Your task to perform on an android device: open app "Instagram" (install if not already installed), go to login, and select forgot password Image 0: 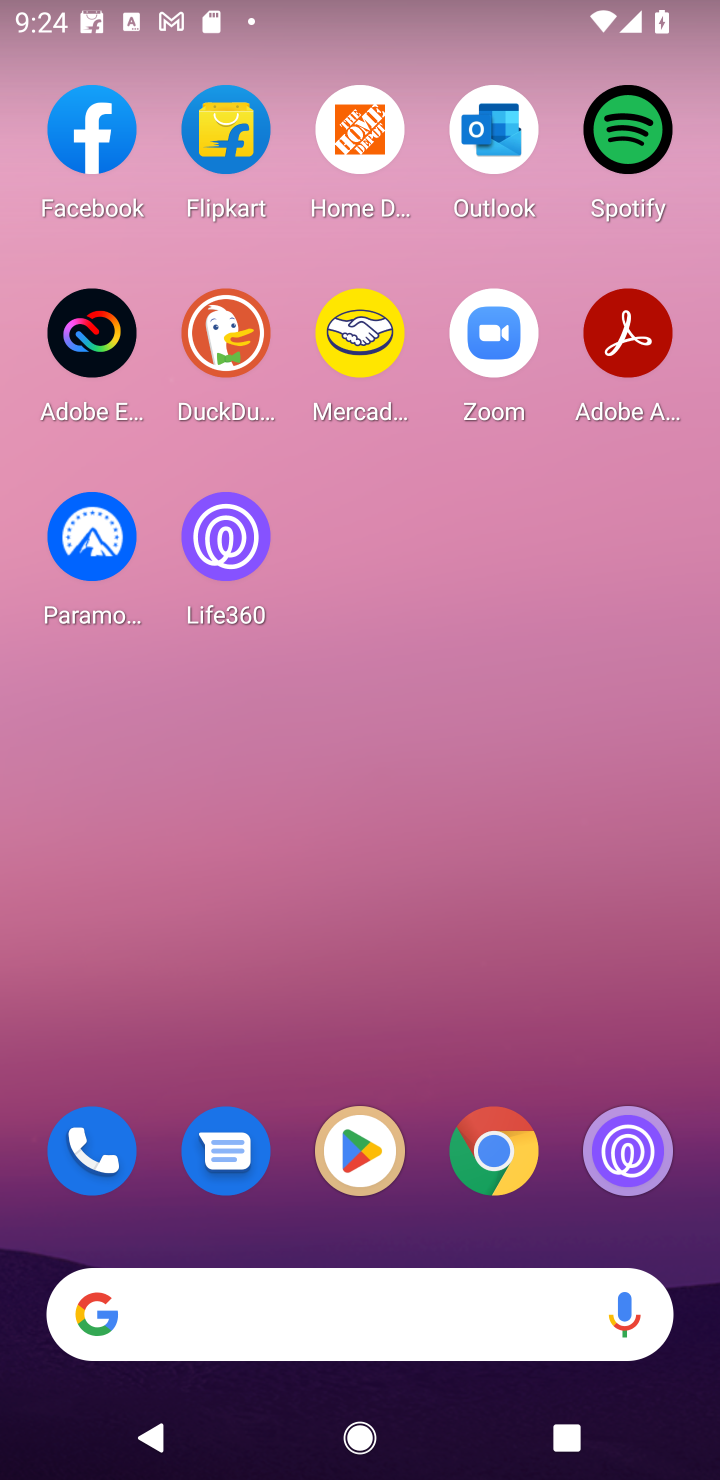
Step 0: press home button
Your task to perform on an android device: open app "Instagram" (install if not already installed), go to login, and select forgot password Image 1: 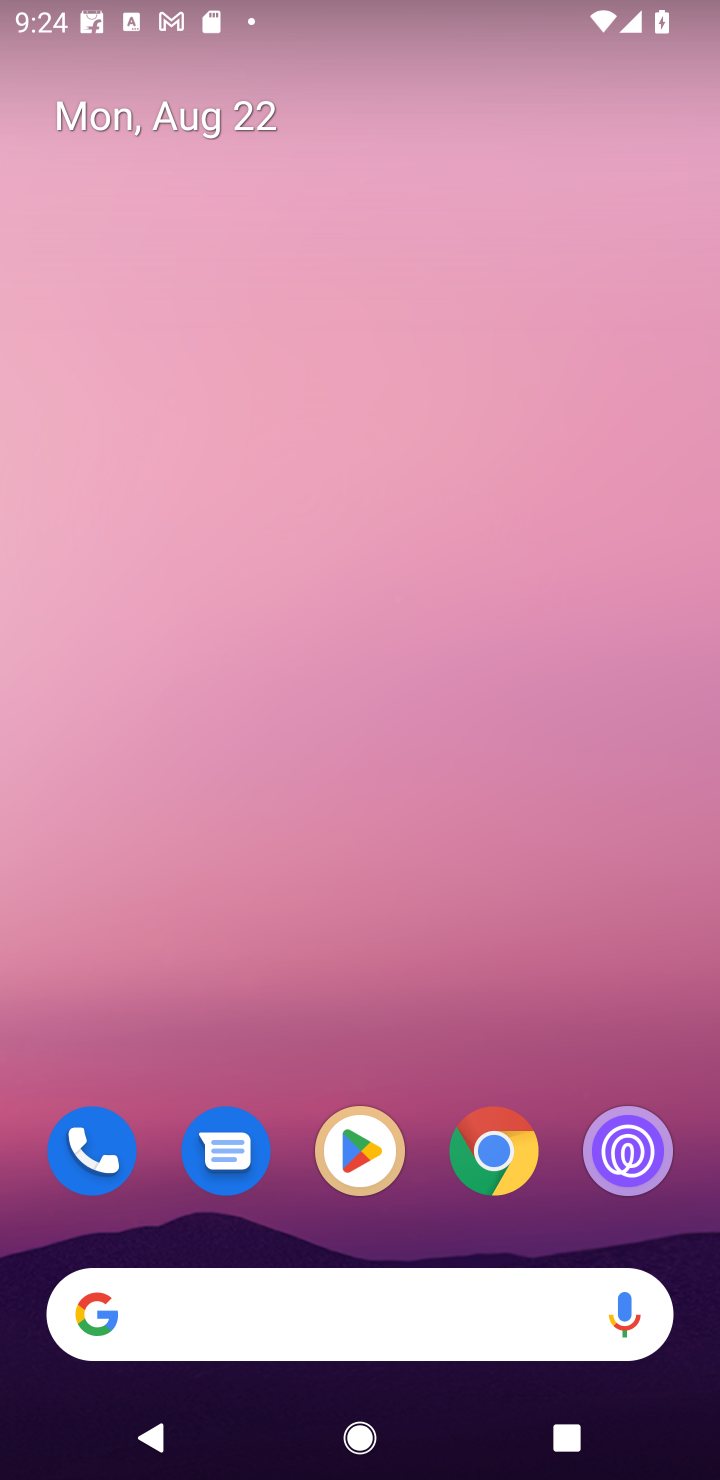
Step 1: click (338, 1150)
Your task to perform on an android device: open app "Instagram" (install if not already installed), go to login, and select forgot password Image 2: 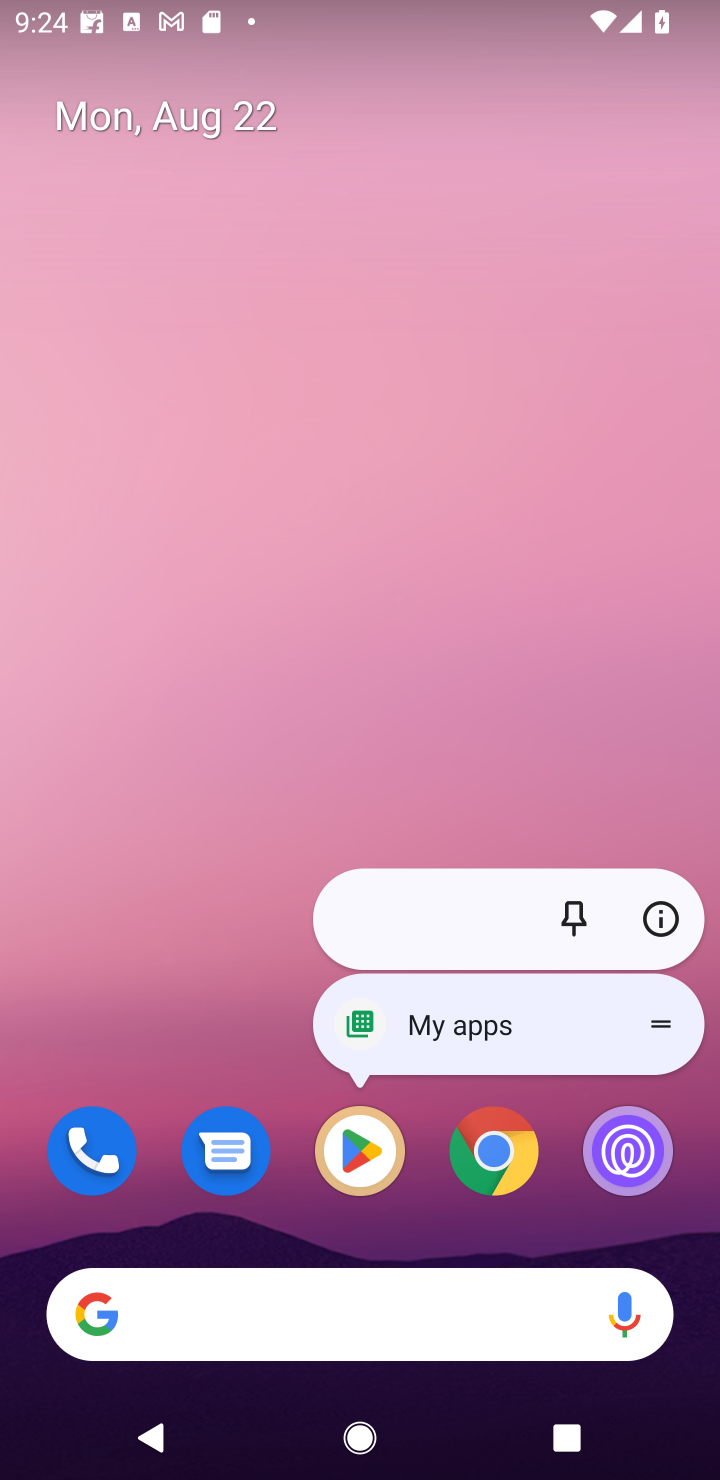
Step 2: click (338, 1156)
Your task to perform on an android device: open app "Instagram" (install if not already installed), go to login, and select forgot password Image 3: 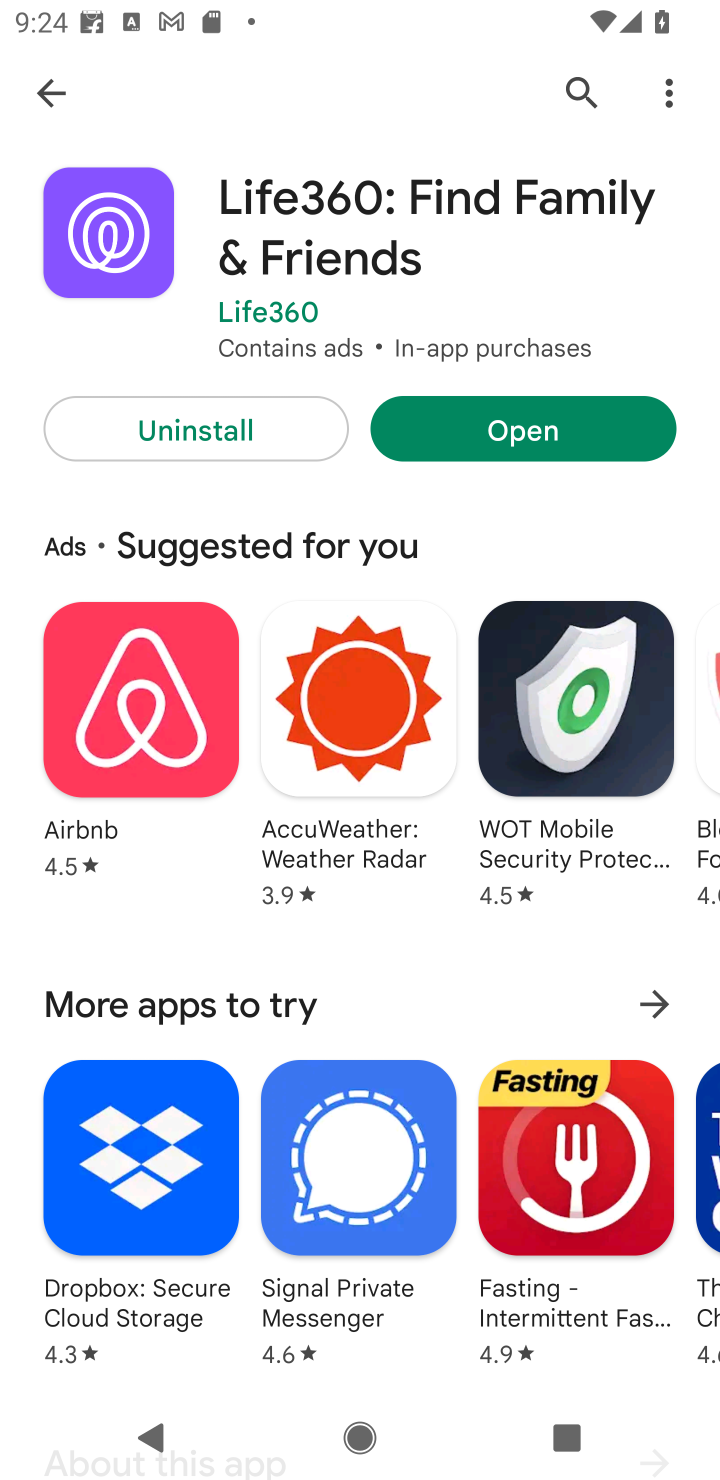
Step 3: click (585, 82)
Your task to perform on an android device: open app "Instagram" (install if not already installed), go to login, and select forgot password Image 4: 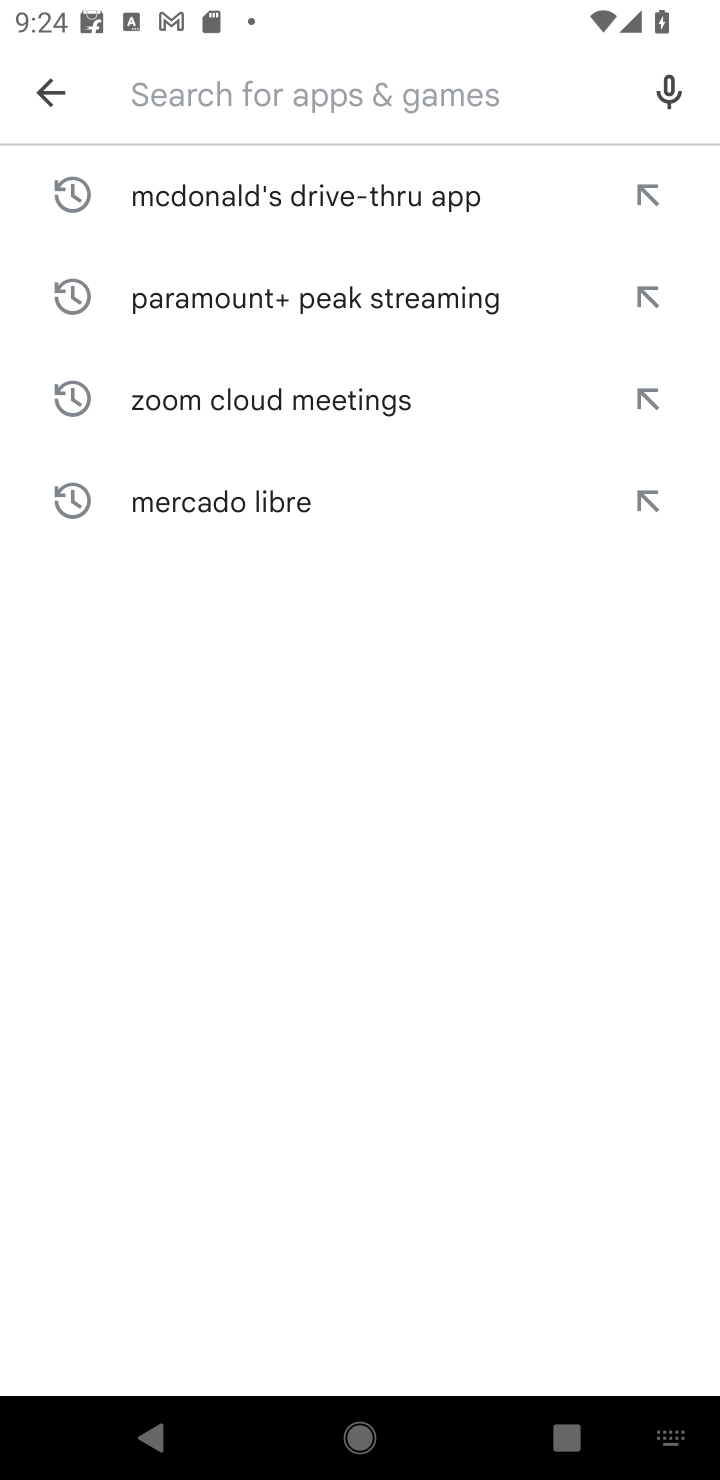
Step 4: type "Instagram"
Your task to perform on an android device: open app "Instagram" (install if not already installed), go to login, and select forgot password Image 5: 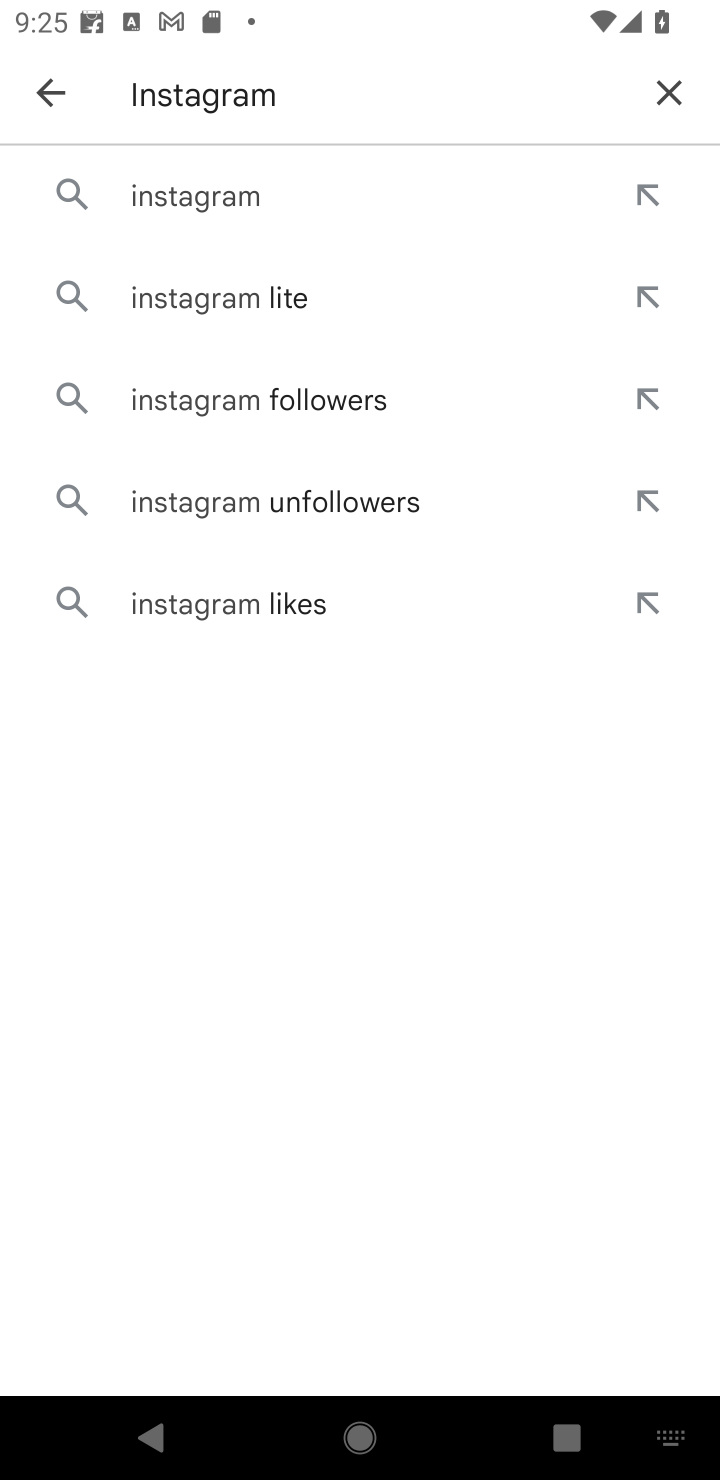
Step 5: click (171, 196)
Your task to perform on an android device: open app "Instagram" (install if not already installed), go to login, and select forgot password Image 6: 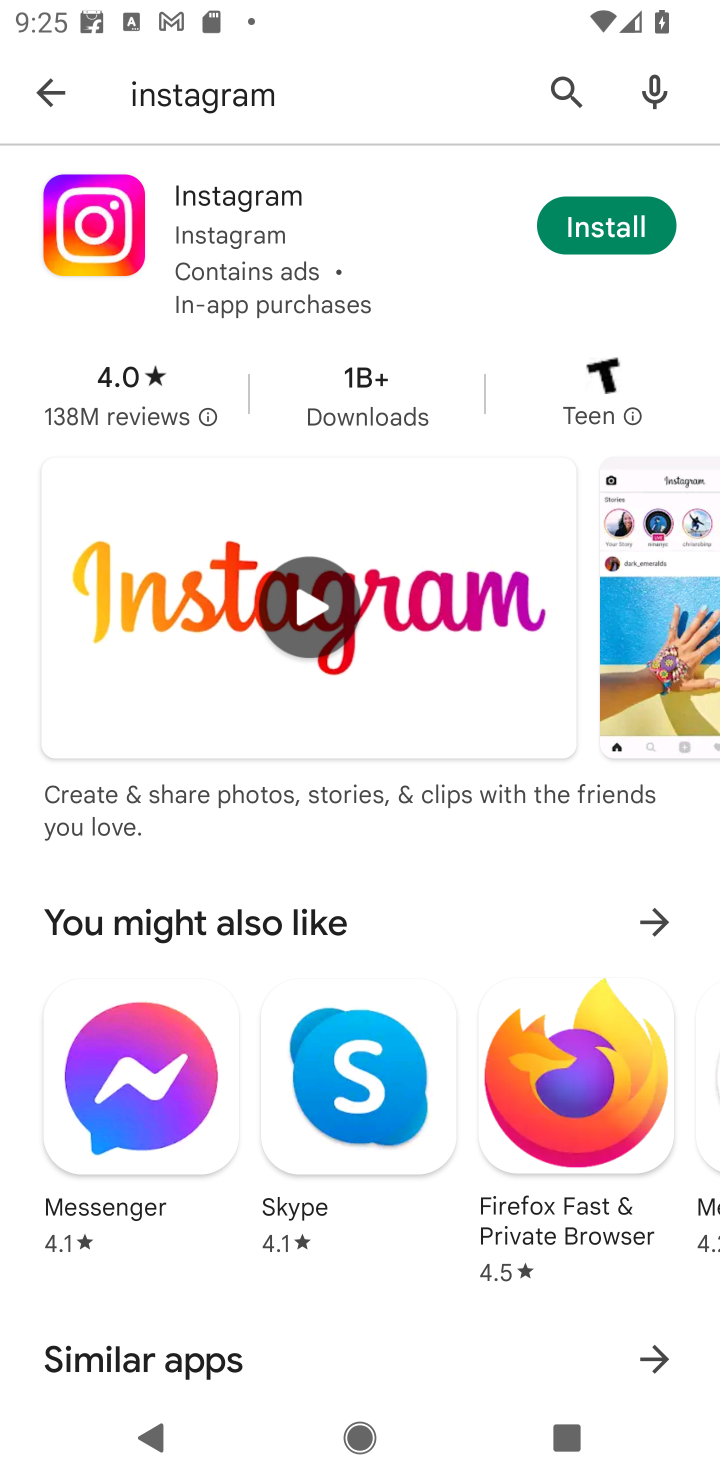
Step 6: click (616, 226)
Your task to perform on an android device: open app "Instagram" (install if not already installed), go to login, and select forgot password Image 7: 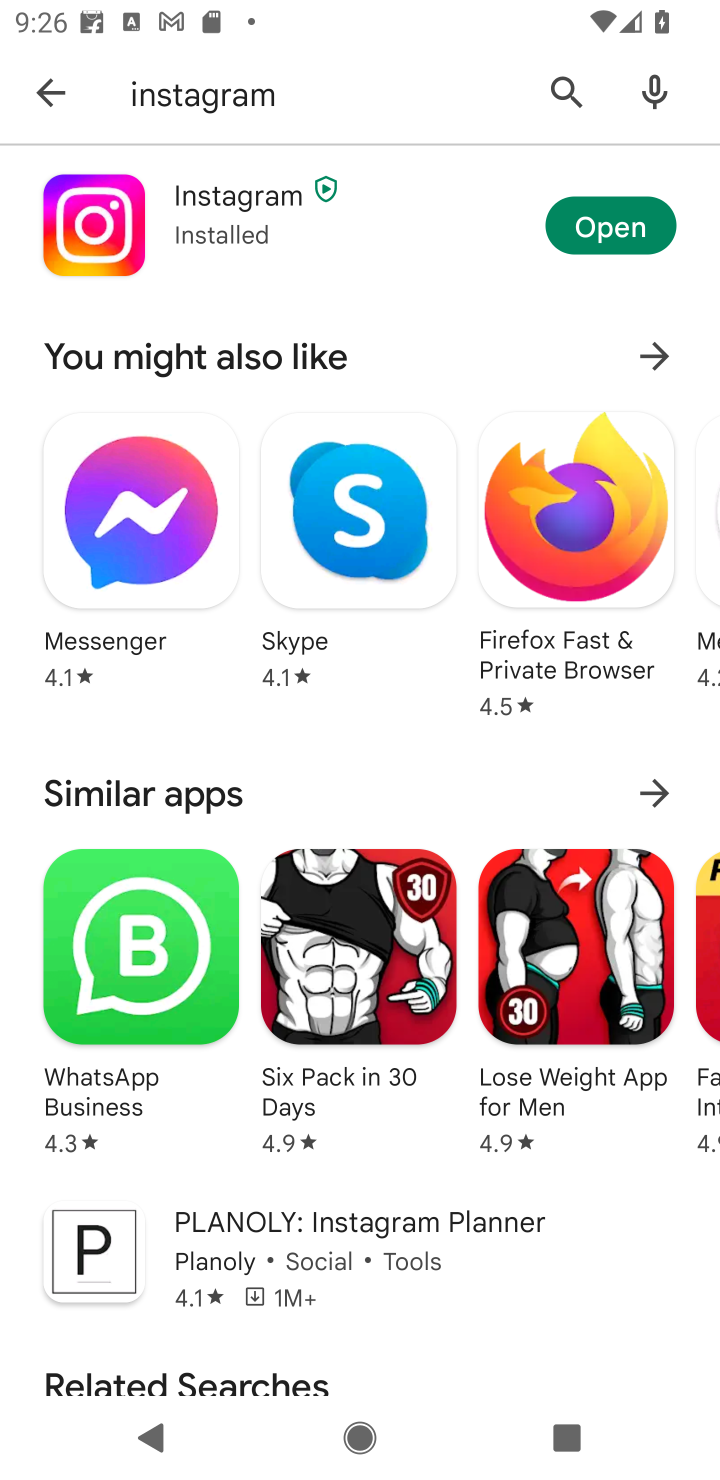
Step 7: click (610, 237)
Your task to perform on an android device: open app "Instagram" (install if not already installed), go to login, and select forgot password Image 8: 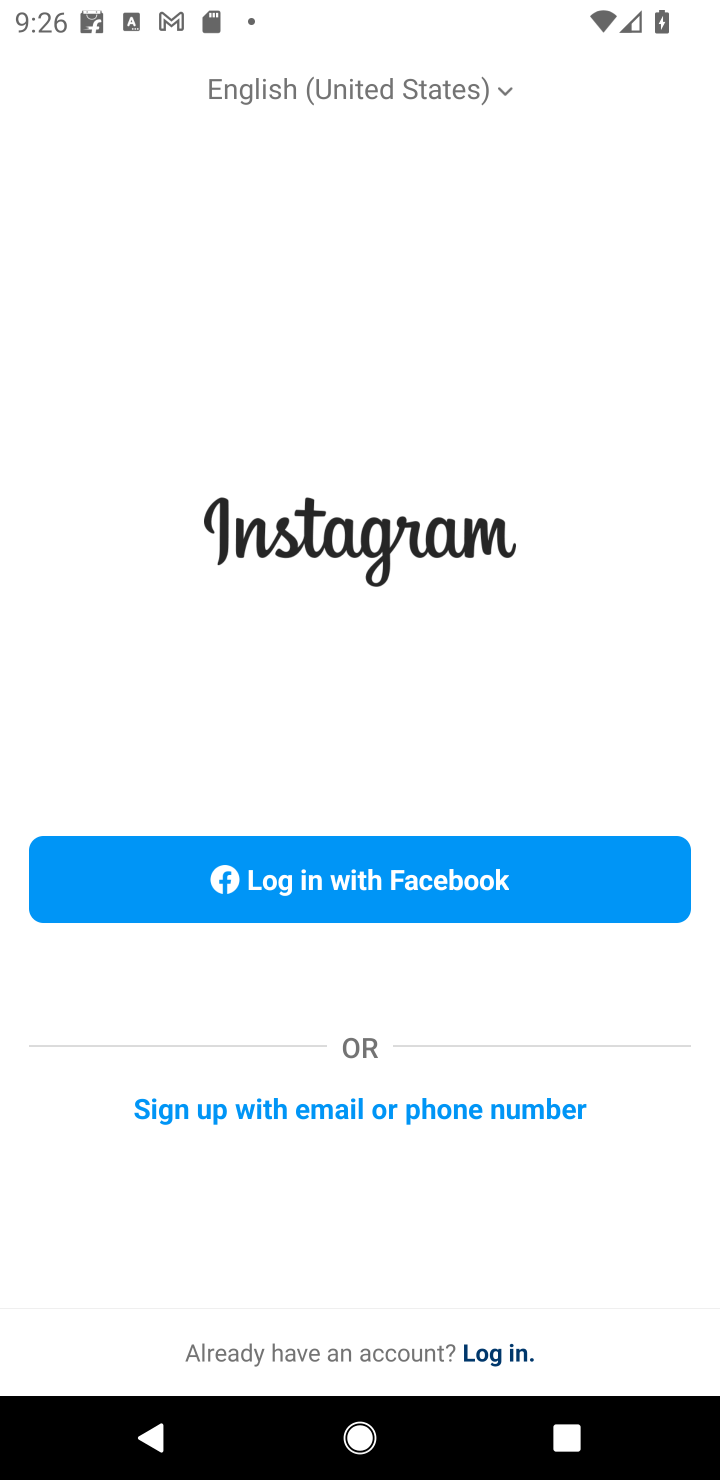
Step 8: click (354, 1111)
Your task to perform on an android device: open app "Instagram" (install if not already installed), go to login, and select forgot password Image 9: 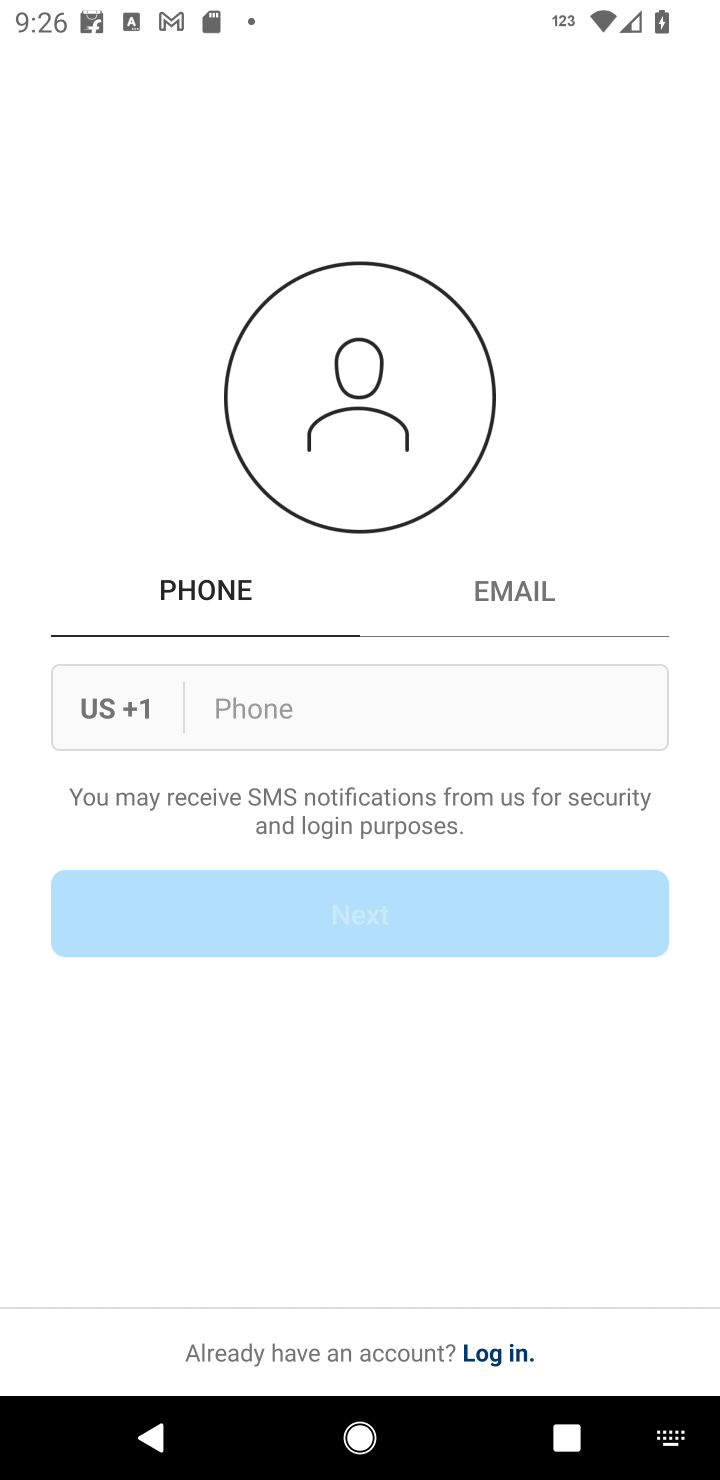
Step 9: click (532, 591)
Your task to perform on an android device: open app "Instagram" (install if not already installed), go to login, and select forgot password Image 10: 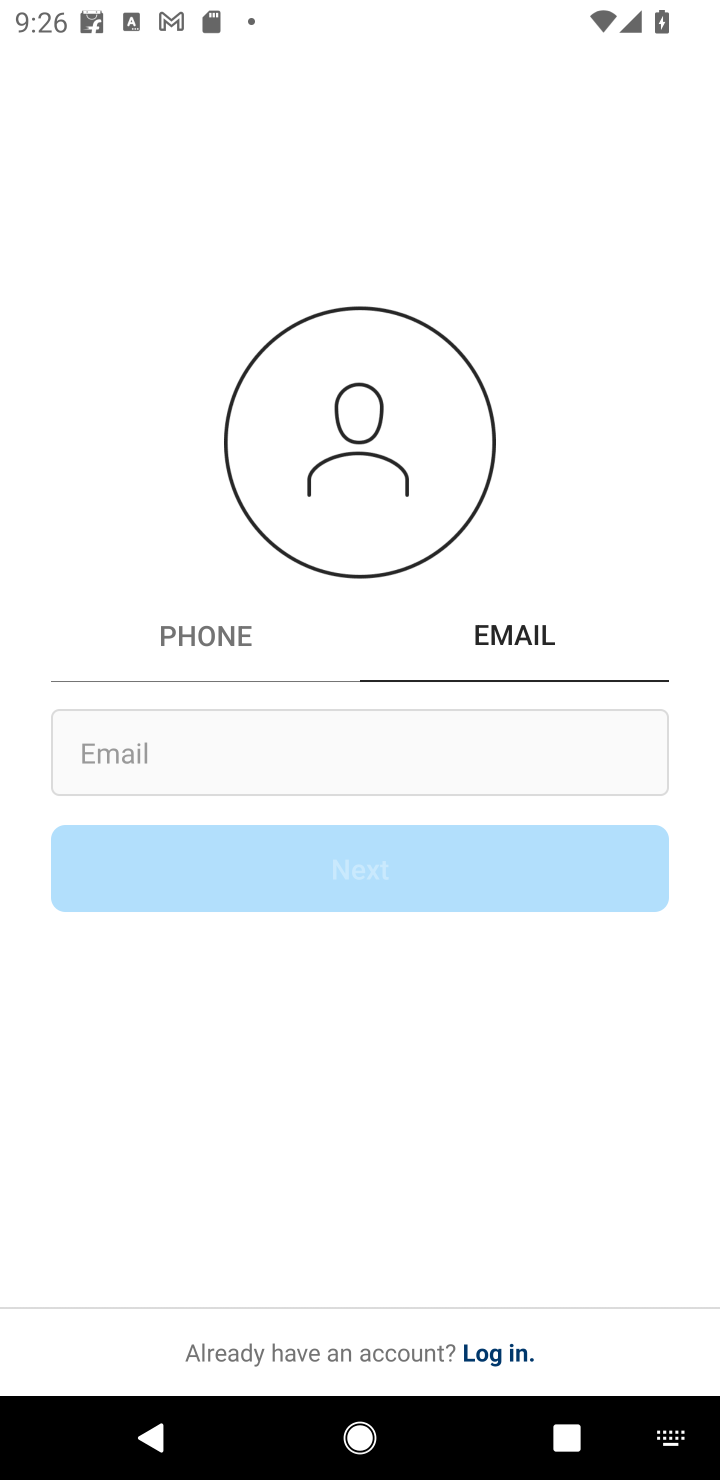
Step 10: task complete